Your task to perform on an android device: toggle data saver in the chrome app Image 0: 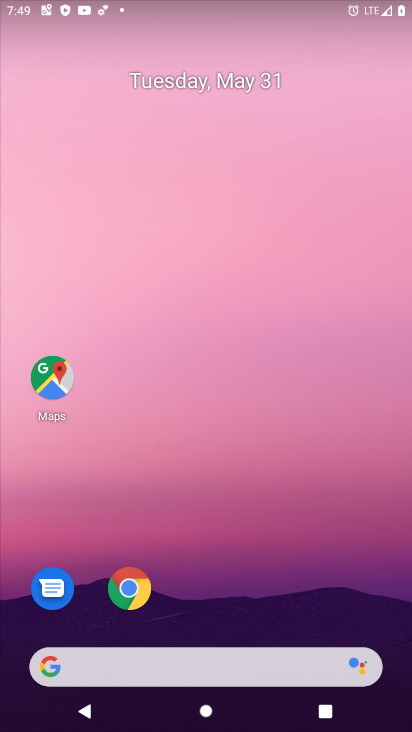
Step 0: click (130, 573)
Your task to perform on an android device: toggle data saver in the chrome app Image 1: 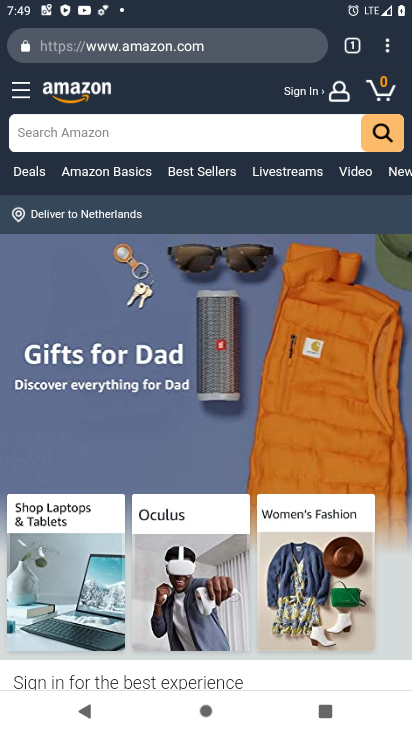
Step 1: click (392, 44)
Your task to perform on an android device: toggle data saver in the chrome app Image 2: 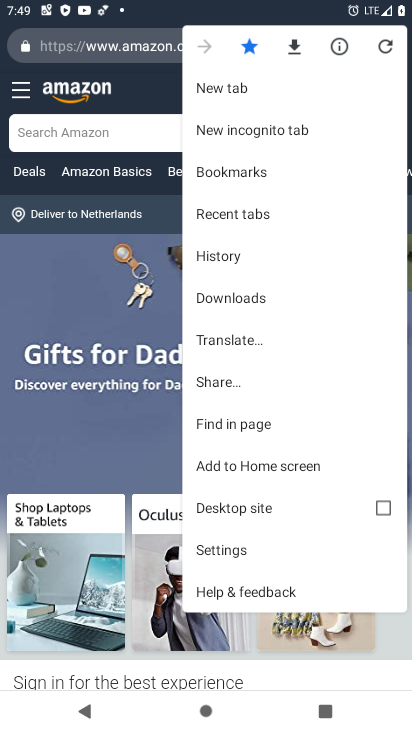
Step 2: click (227, 545)
Your task to perform on an android device: toggle data saver in the chrome app Image 3: 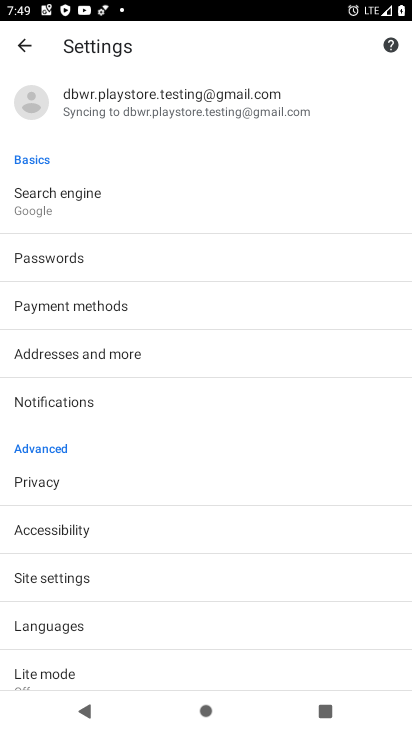
Step 3: click (52, 674)
Your task to perform on an android device: toggle data saver in the chrome app Image 4: 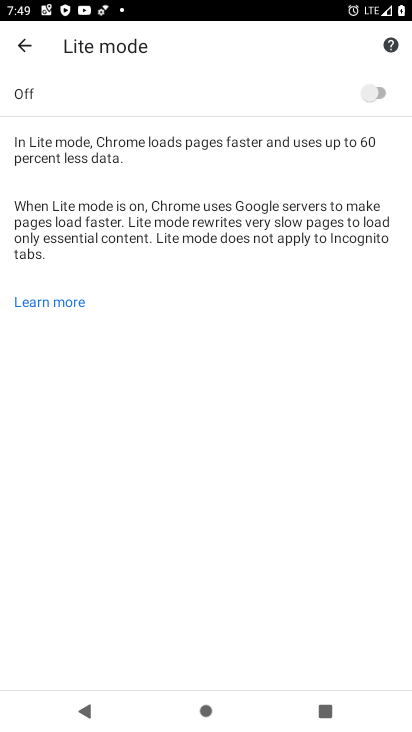
Step 4: click (384, 97)
Your task to perform on an android device: toggle data saver in the chrome app Image 5: 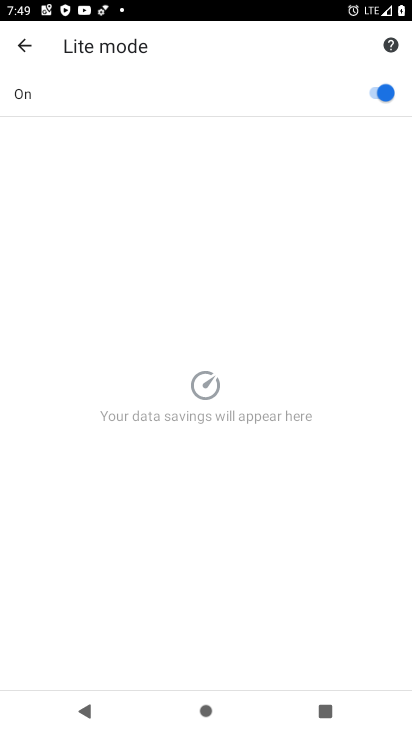
Step 5: task complete